Your task to perform on an android device: Open ESPN.com Image 0: 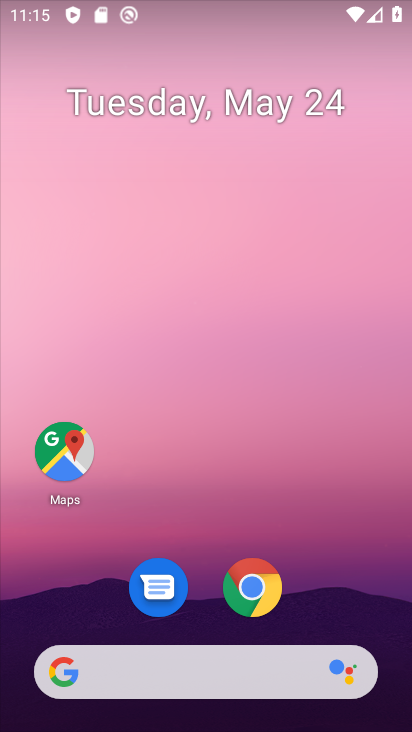
Step 0: click (258, 585)
Your task to perform on an android device: Open ESPN.com Image 1: 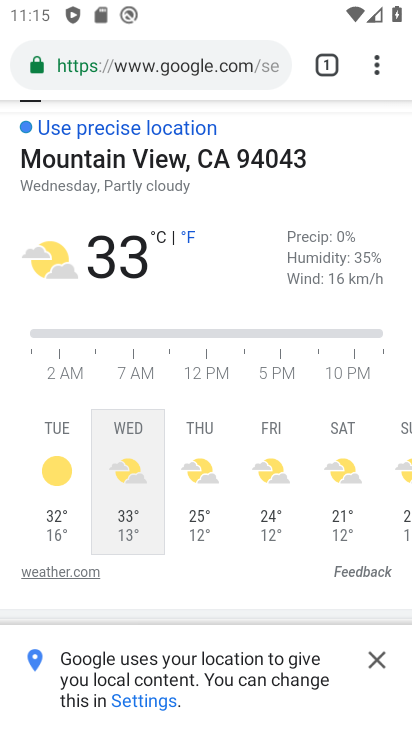
Step 1: click (333, 71)
Your task to perform on an android device: Open ESPN.com Image 2: 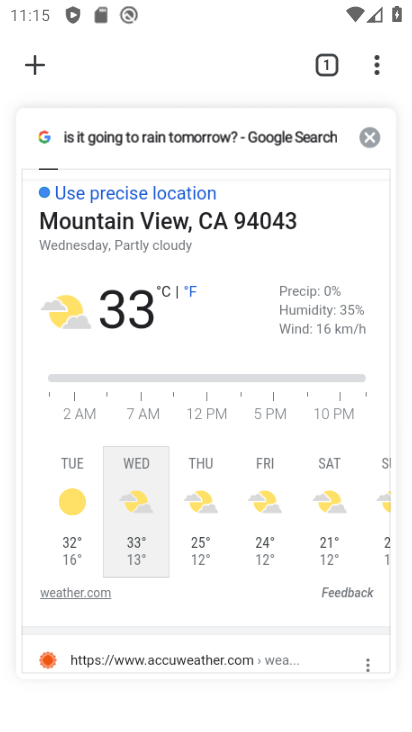
Step 2: click (31, 64)
Your task to perform on an android device: Open ESPN.com Image 3: 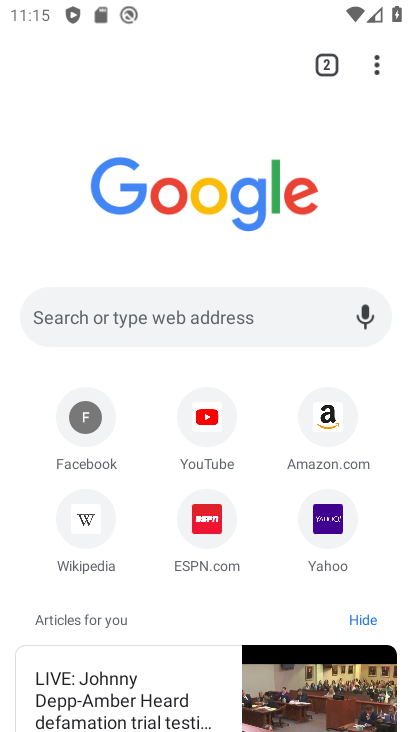
Step 3: click (204, 524)
Your task to perform on an android device: Open ESPN.com Image 4: 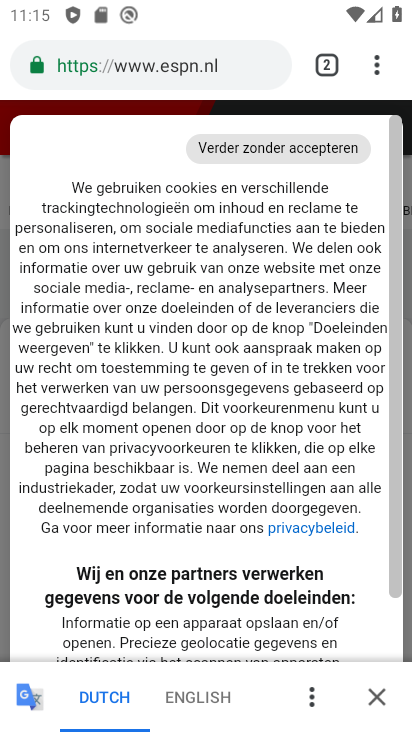
Step 4: task complete